Your task to perform on an android device: Search for sushi restaurants on Maps Image 0: 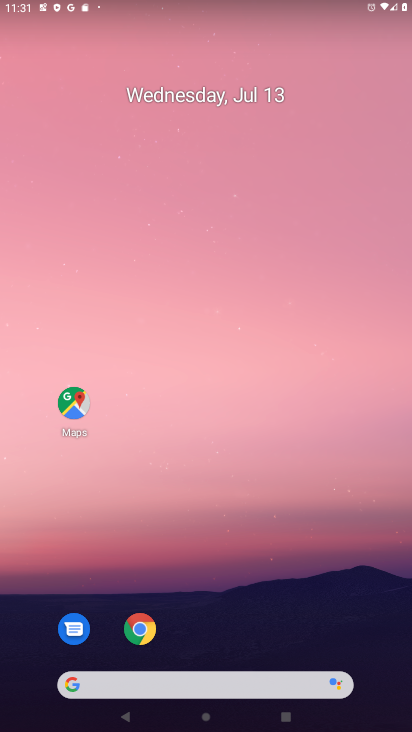
Step 0: click (67, 390)
Your task to perform on an android device: Search for sushi restaurants on Maps Image 1: 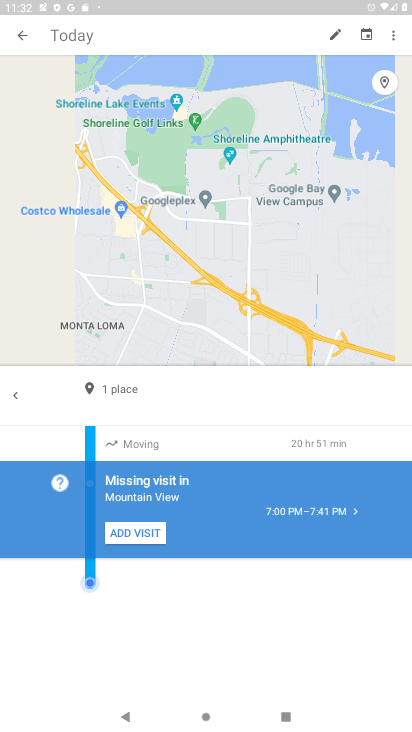
Step 1: click (26, 26)
Your task to perform on an android device: Search for sushi restaurants on Maps Image 2: 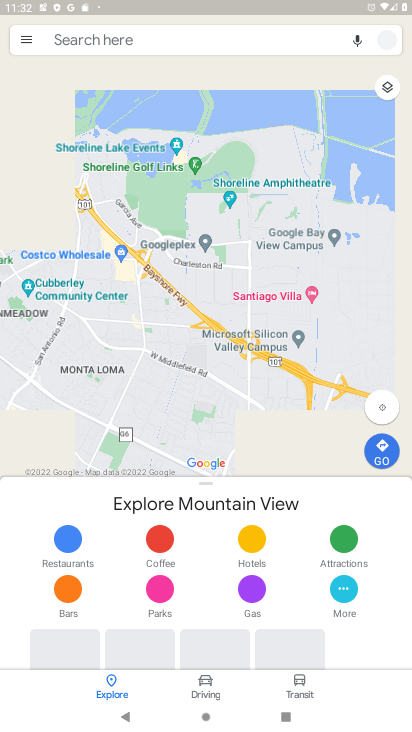
Step 2: click (186, 42)
Your task to perform on an android device: Search for sushi restaurants on Maps Image 3: 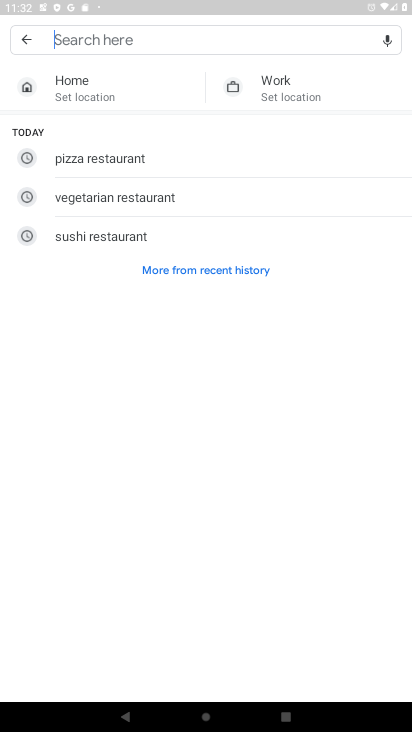
Step 3: type "sushu "
Your task to perform on an android device: Search for sushi restaurants on Maps Image 4: 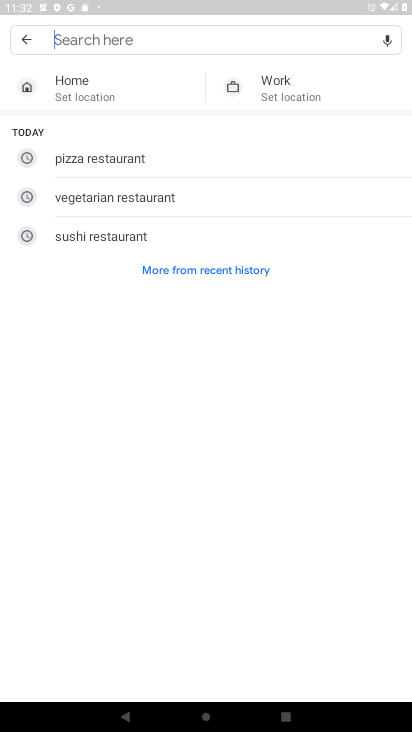
Step 4: click (208, 230)
Your task to perform on an android device: Search for sushi restaurants on Maps Image 5: 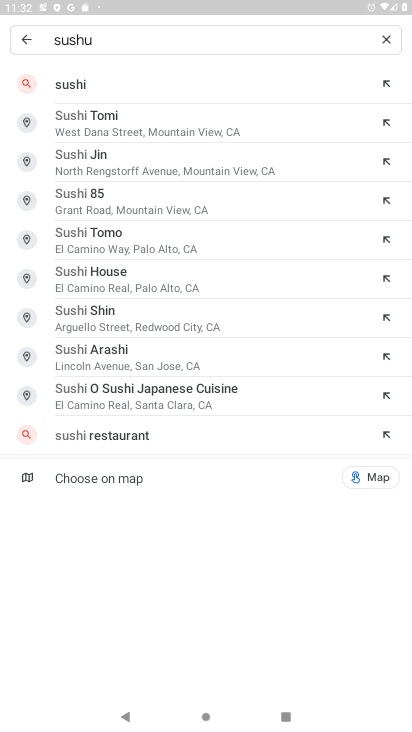
Step 5: task complete